Your task to perform on an android device: Open maps Image 0: 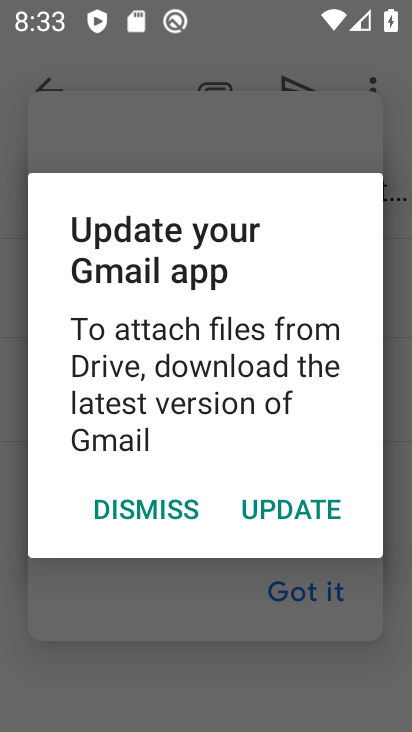
Step 0: press home button
Your task to perform on an android device: Open maps Image 1: 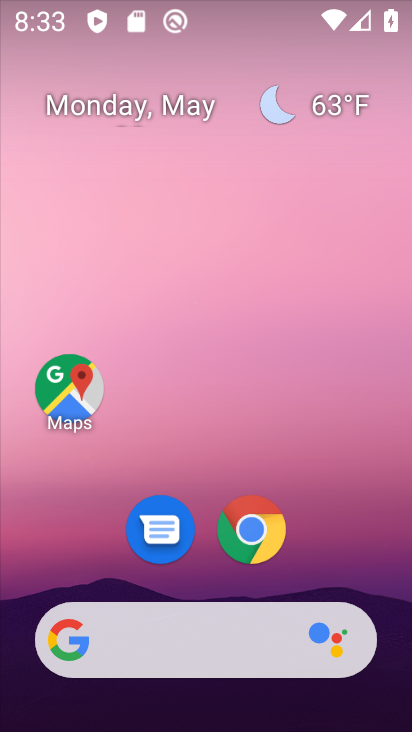
Step 1: click (71, 398)
Your task to perform on an android device: Open maps Image 2: 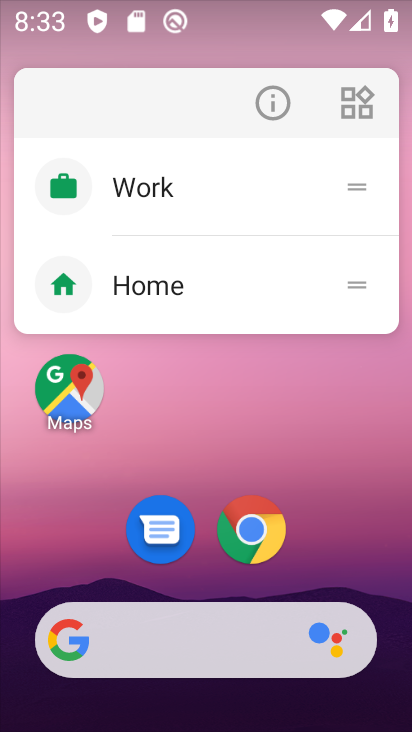
Step 2: click (80, 402)
Your task to perform on an android device: Open maps Image 3: 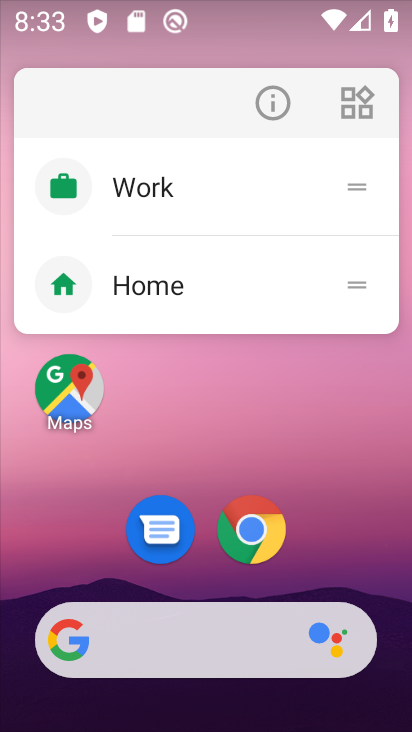
Step 3: click (79, 392)
Your task to perform on an android device: Open maps Image 4: 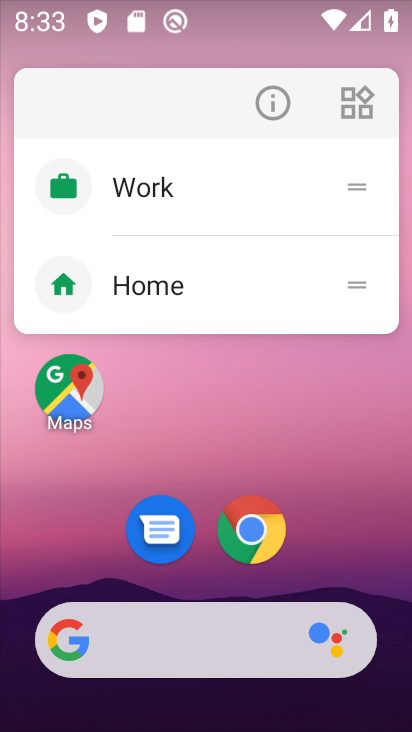
Step 4: click (72, 391)
Your task to perform on an android device: Open maps Image 5: 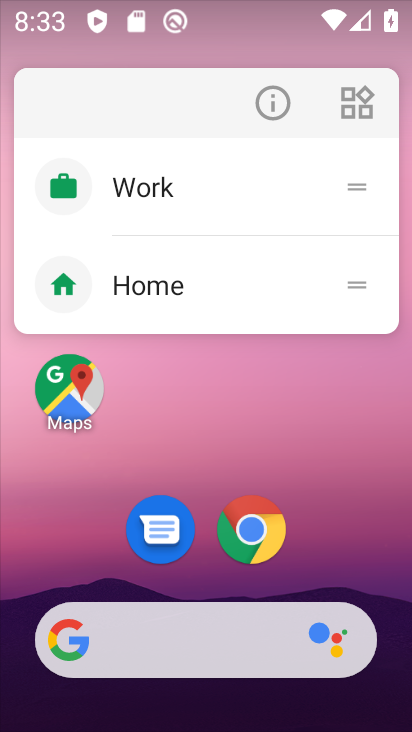
Step 5: click (59, 394)
Your task to perform on an android device: Open maps Image 6: 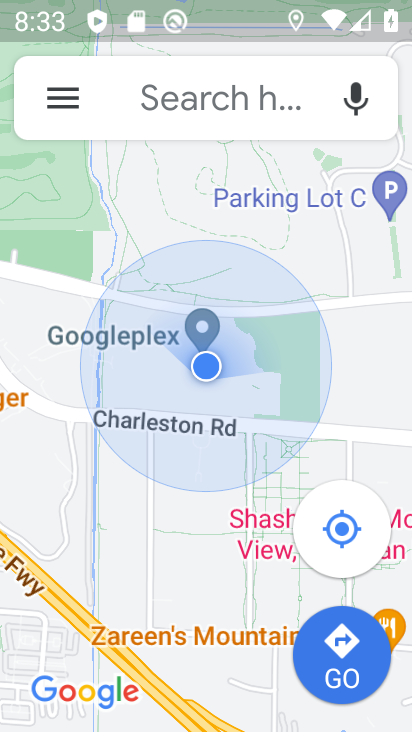
Step 6: task complete